Your task to perform on an android device: open app "Facebook Messenger" (install if not already installed) and enter user name: "divorce@inbox.com" and password: "caviar" Image 0: 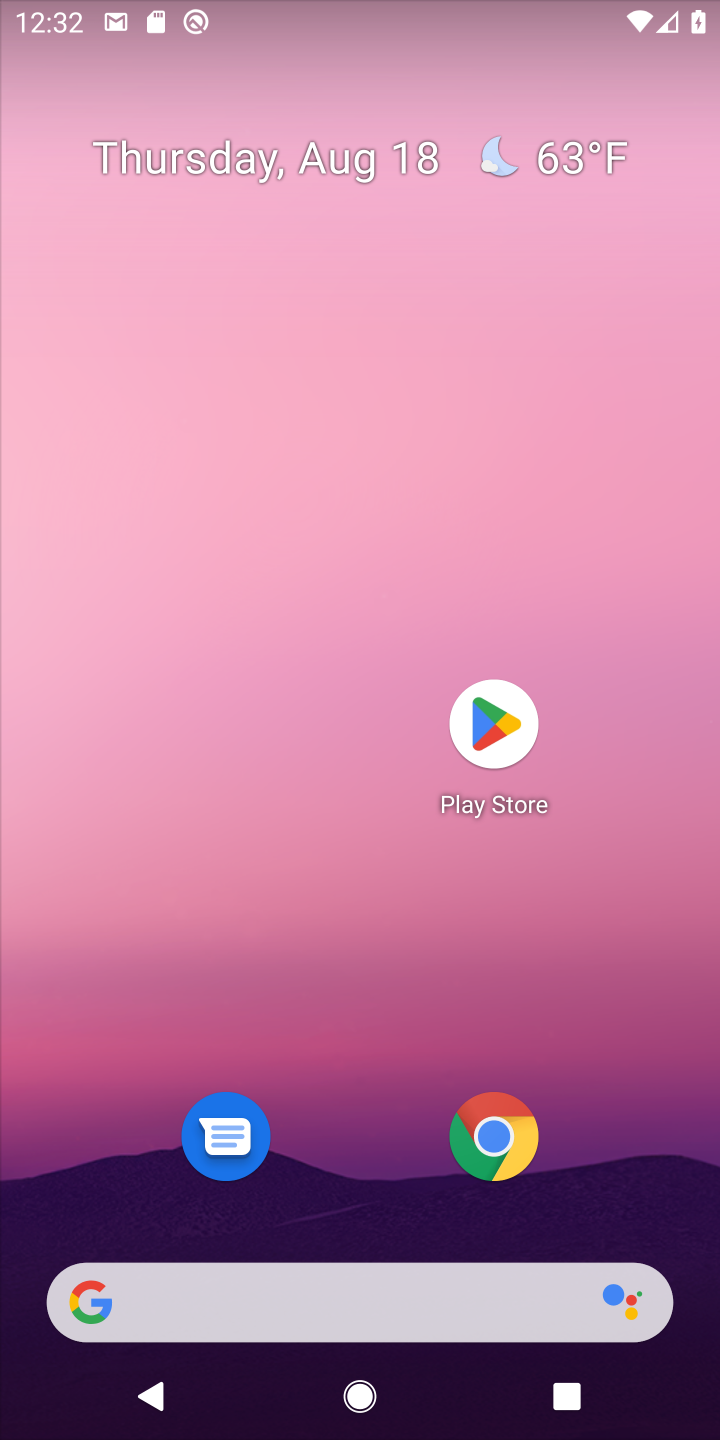
Step 0: click (494, 727)
Your task to perform on an android device: open app "Facebook Messenger" (install if not already installed) and enter user name: "divorce@inbox.com" and password: "caviar" Image 1: 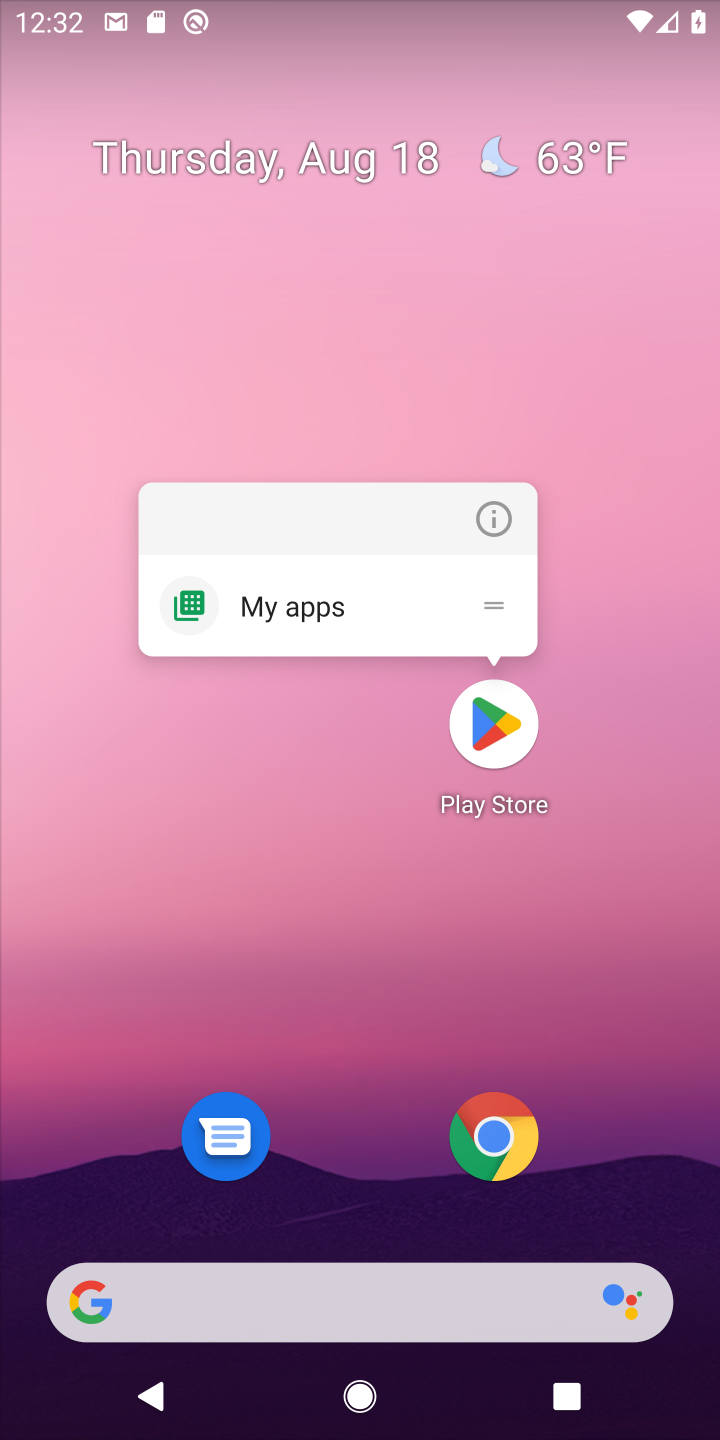
Step 1: click (494, 729)
Your task to perform on an android device: open app "Facebook Messenger" (install if not already installed) and enter user name: "divorce@inbox.com" and password: "caviar" Image 2: 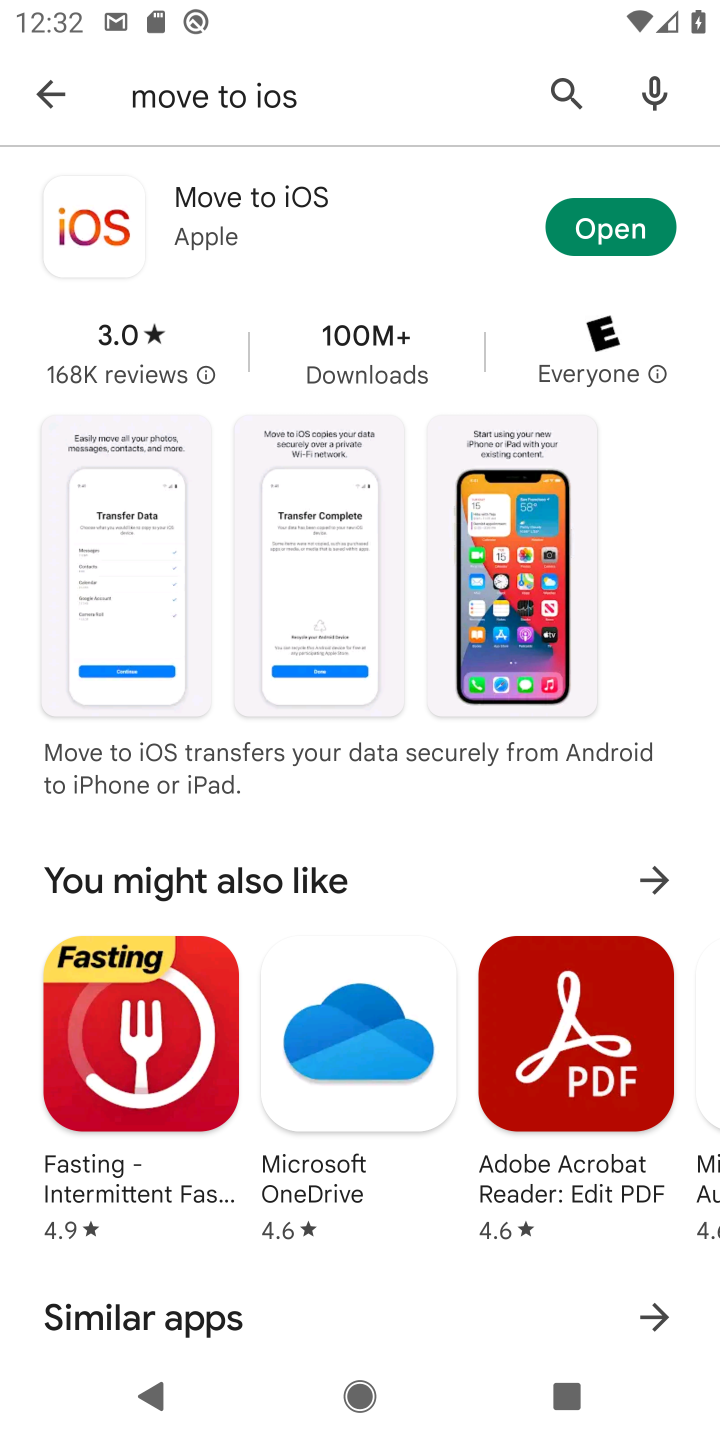
Step 2: click (571, 89)
Your task to perform on an android device: open app "Facebook Messenger" (install if not already installed) and enter user name: "divorce@inbox.com" and password: "caviar" Image 3: 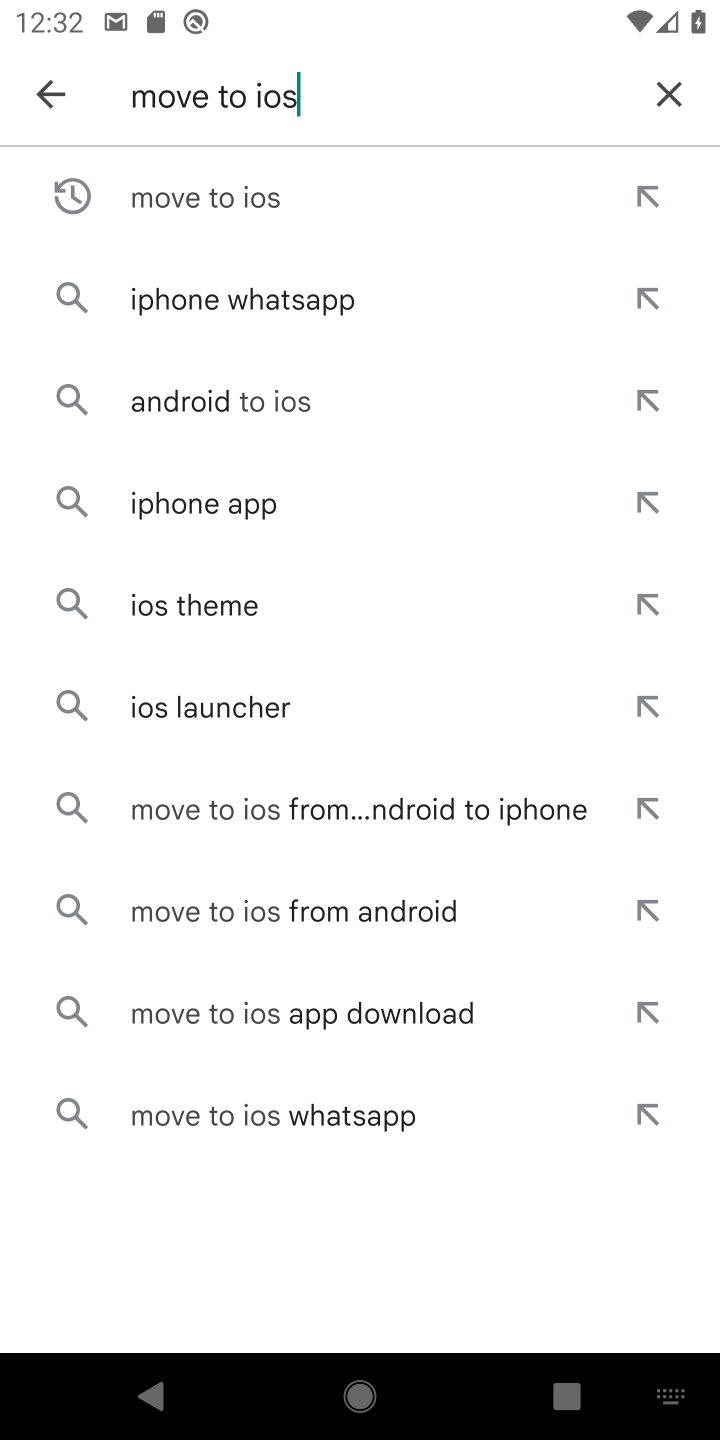
Step 3: click (673, 86)
Your task to perform on an android device: open app "Facebook Messenger" (install if not already installed) and enter user name: "divorce@inbox.com" and password: "caviar" Image 4: 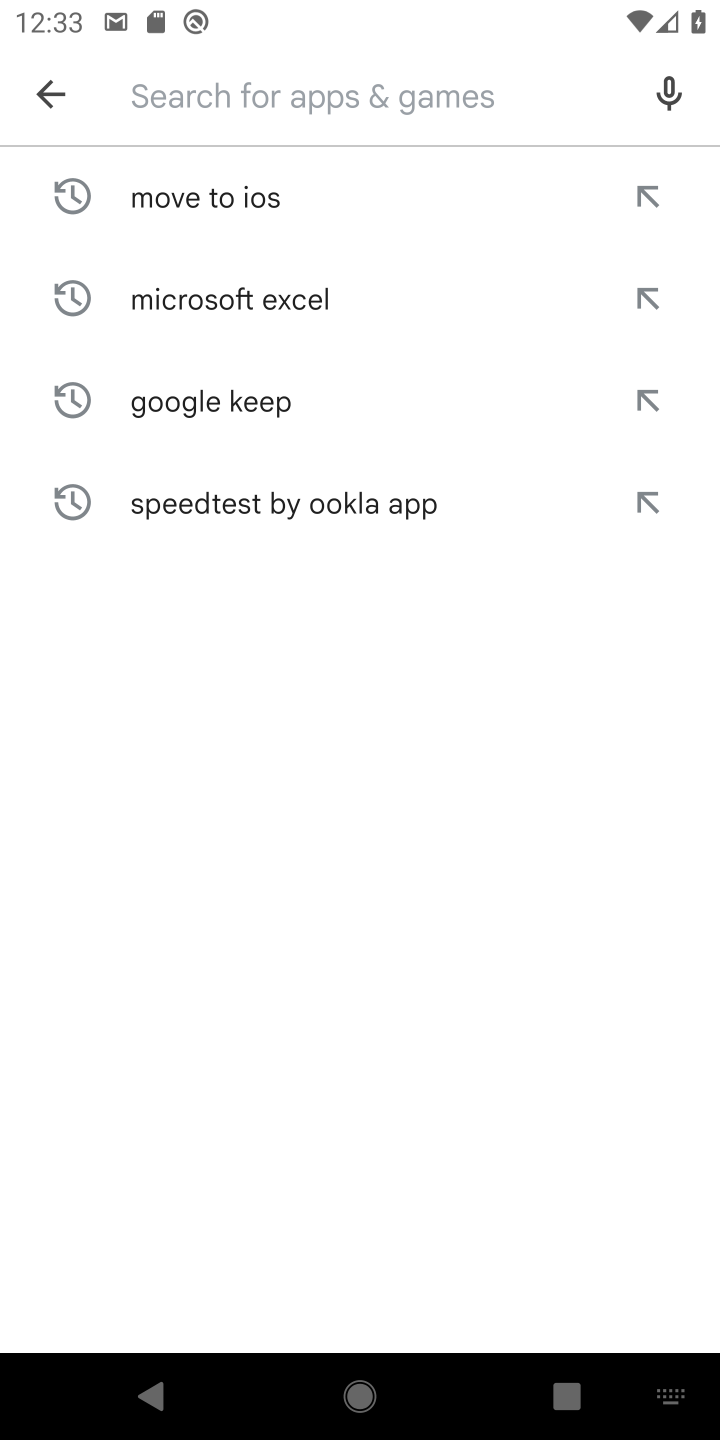
Step 4: type "Facebook Messenger"
Your task to perform on an android device: open app "Facebook Messenger" (install if not already installed) and enter user name: "divorce@inbox.com" and password: "caviar" Image 5: 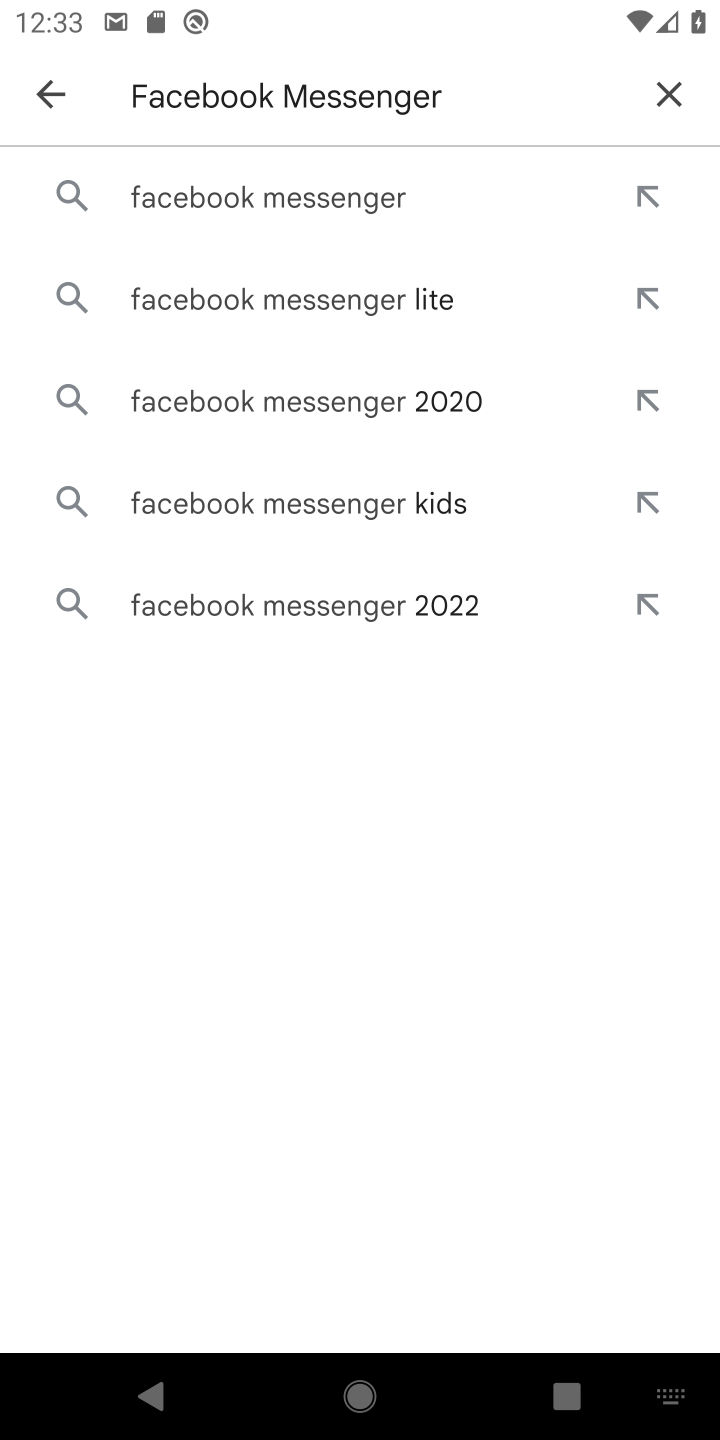
Step 5: click (275, 188)
Your task to perform on an android device: open app "Facebook Messenger" (install if not already installed) and enter user name: "divorce@inbox.com" and password: "caviar" Image 6: 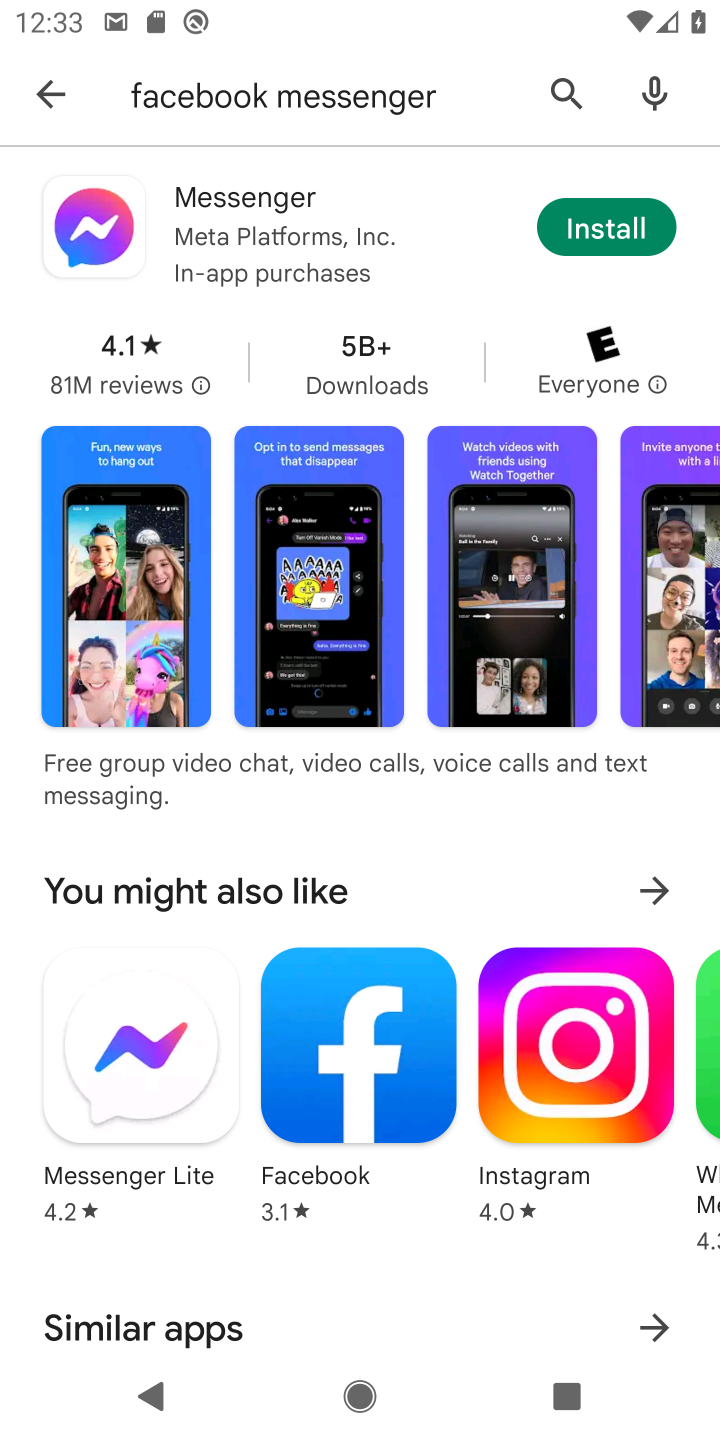
Step 6: click (616, 232)
Your task to perform on an android device: open app "Facebook Messenger" (install if not already installed) and enter user name: "divorce@inbox.com" and password: "caviar" Image 7: 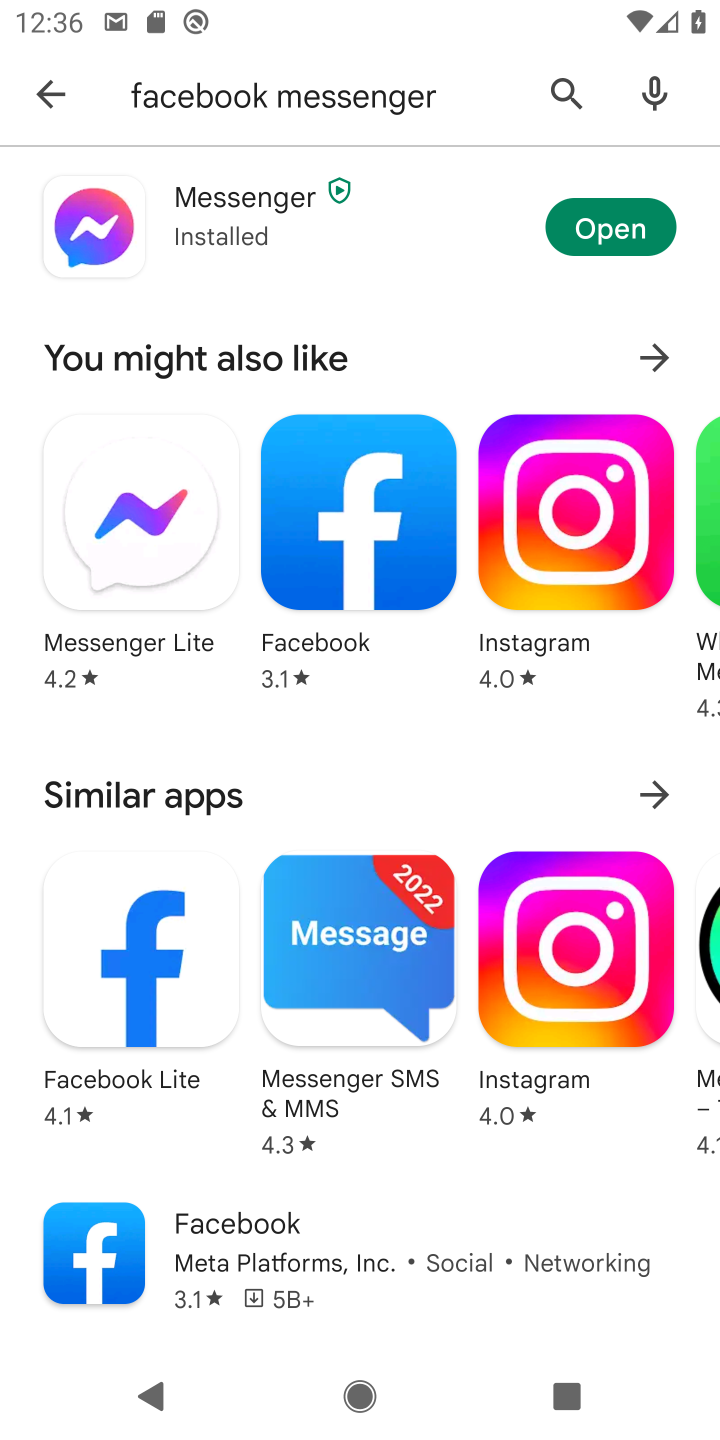
Step 7: click (610, 224)
Your task to perform on an android device: open app "Facebook Messenger" (install if not already installed) and enter user name: "divorce@inbox.com" and password: "caviar" Image 8: 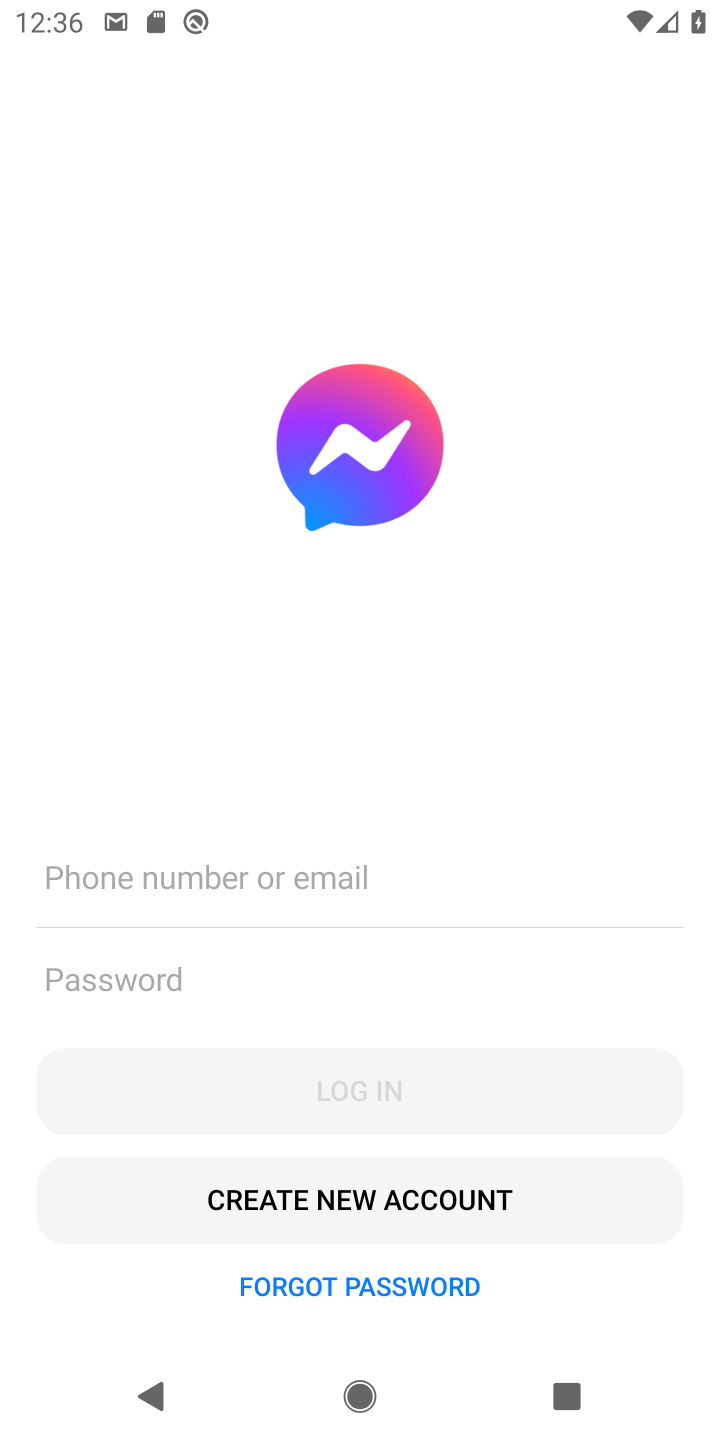
Step 8: click (216, 866)
Your task to perform on an android device: open app "Facebook Messenger" (install if not already installed) and enter user name: "divorce@inbox.com" and password: "caviar" Image 9: 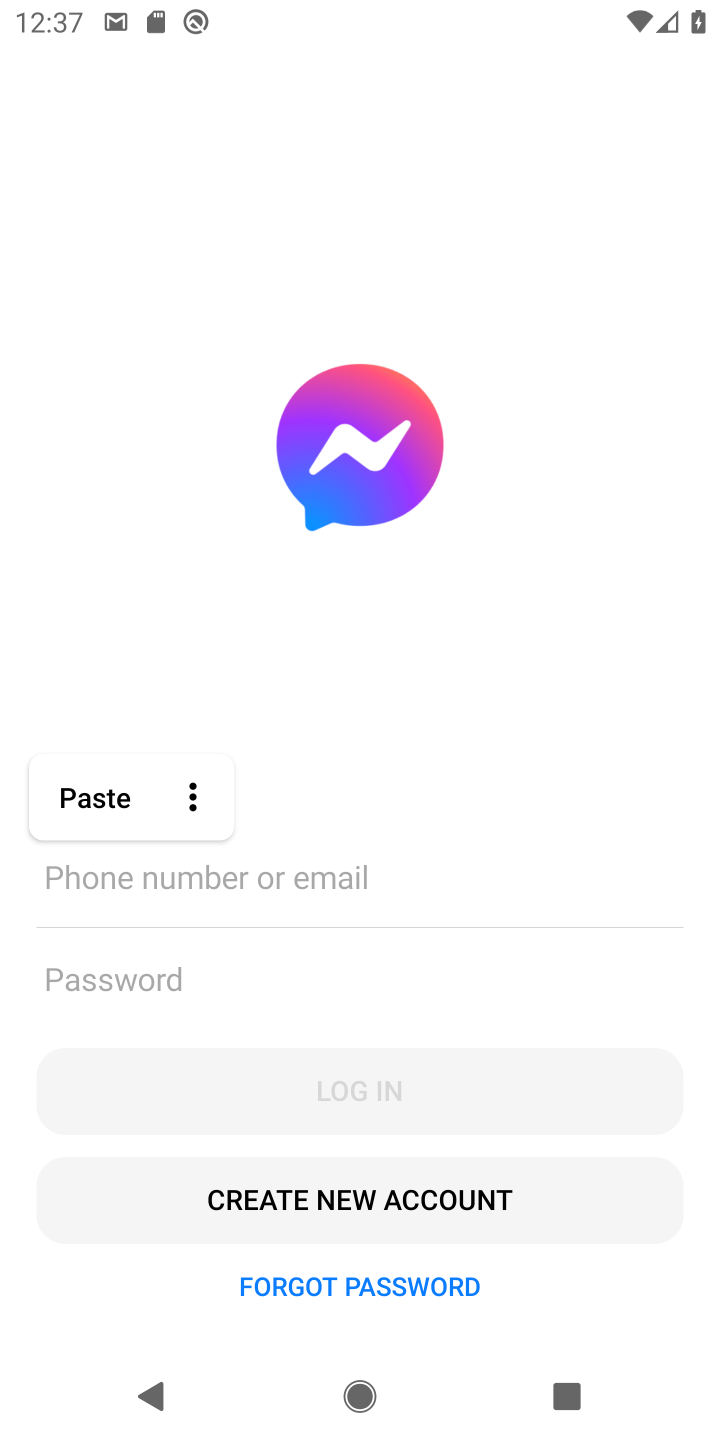
Step 9: type "divorce@inbox.com"
Your task to perform on an android device: open app "Facebook Messenger" (install if not already installed) and enter user name: "divorce@inbox.com" and password: "caviar" Image 10: 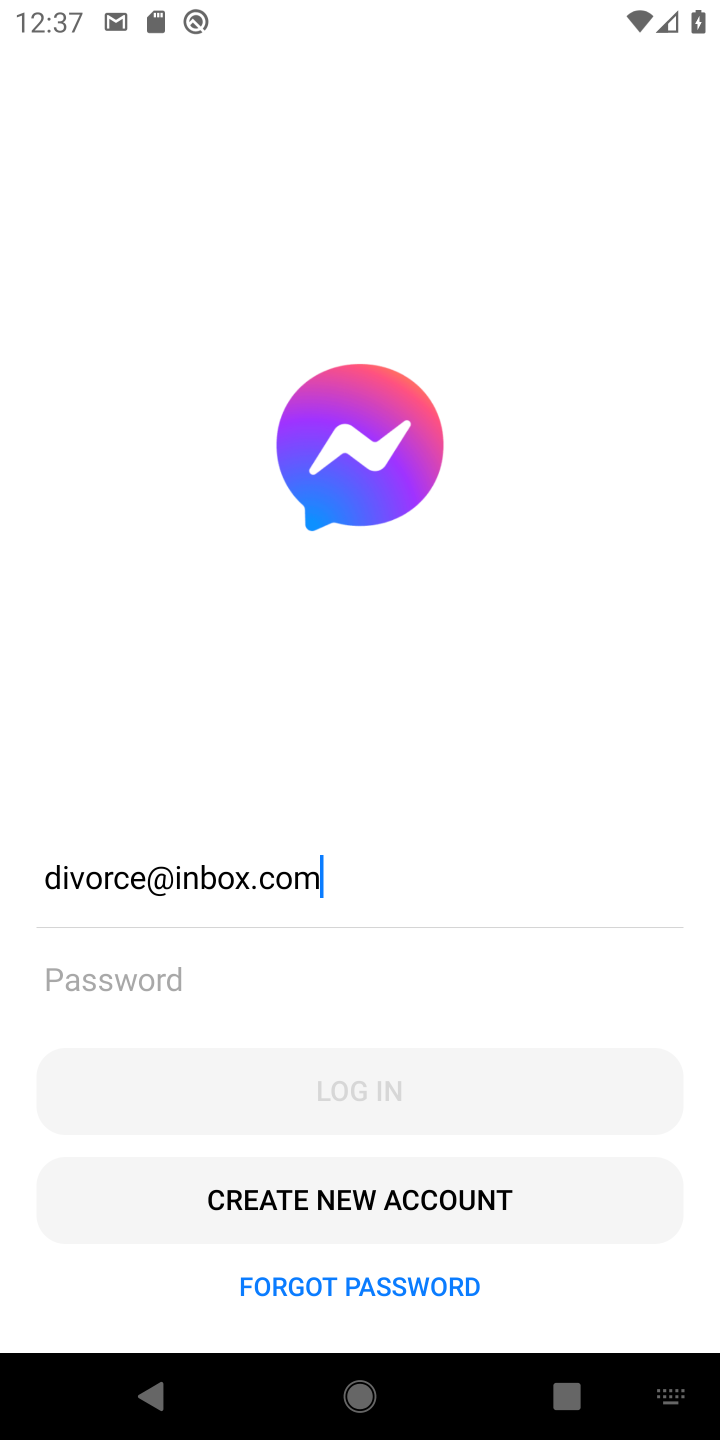
Step 10: click (162, 966)
Your task to perform on an android device: open app "Facebook Messenger" (install if not already installed) and enter user name: "divorce@inbox.com" and password: "caviar" Image 11: 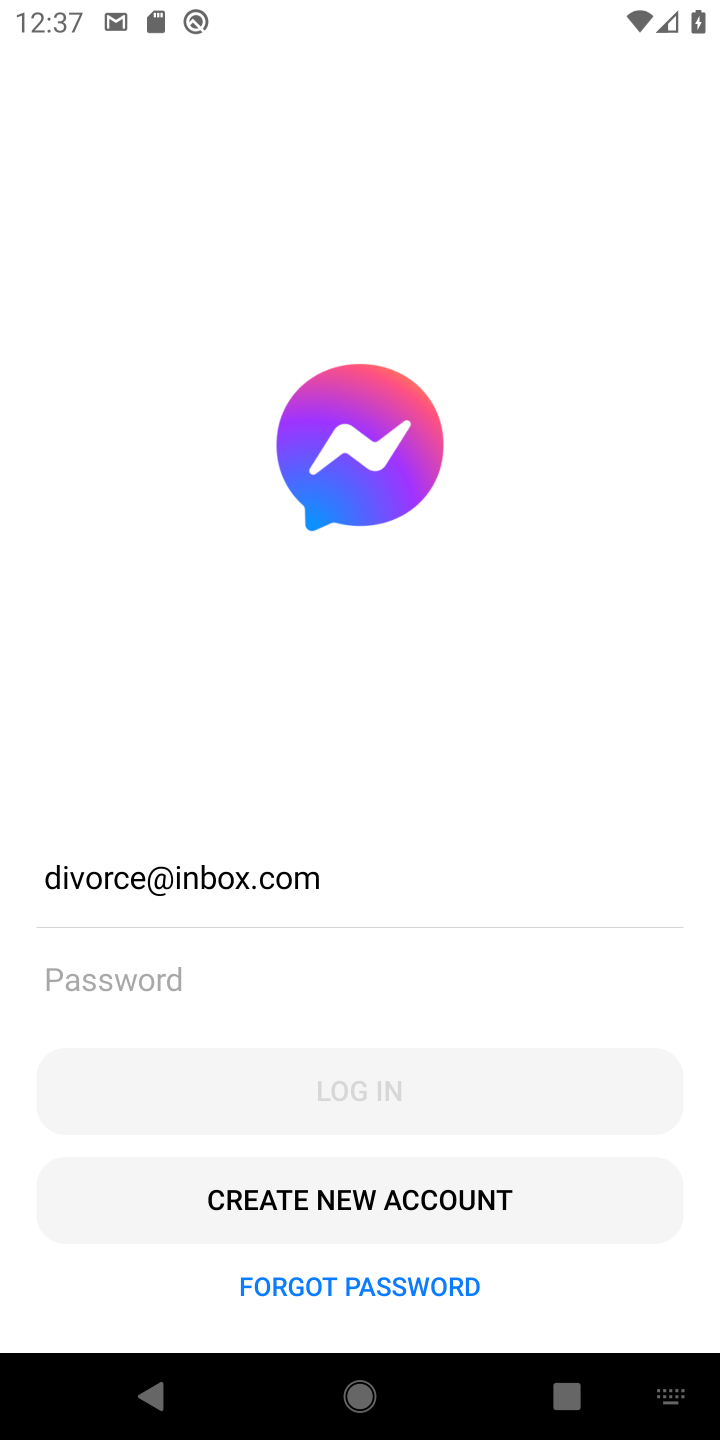
Step 11: type "caviar"
Your task to perform on an android device: open app "Facebook Messenger" (install if not already installed) and enter user name: "divorce@inbox.com" and password: "caviar" Image 12: 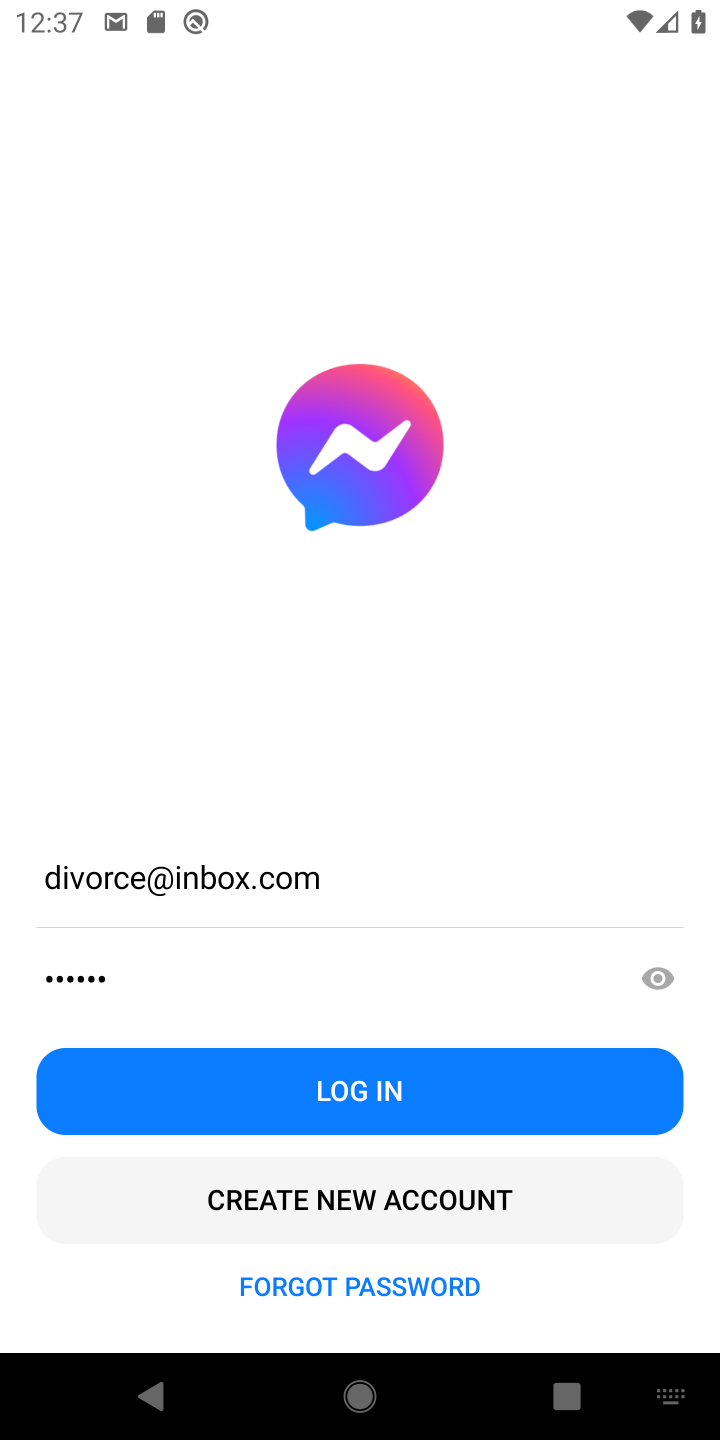
Step 12: task complete